Your task to perform on an android device: install app "Nova Launcher" Image 0: 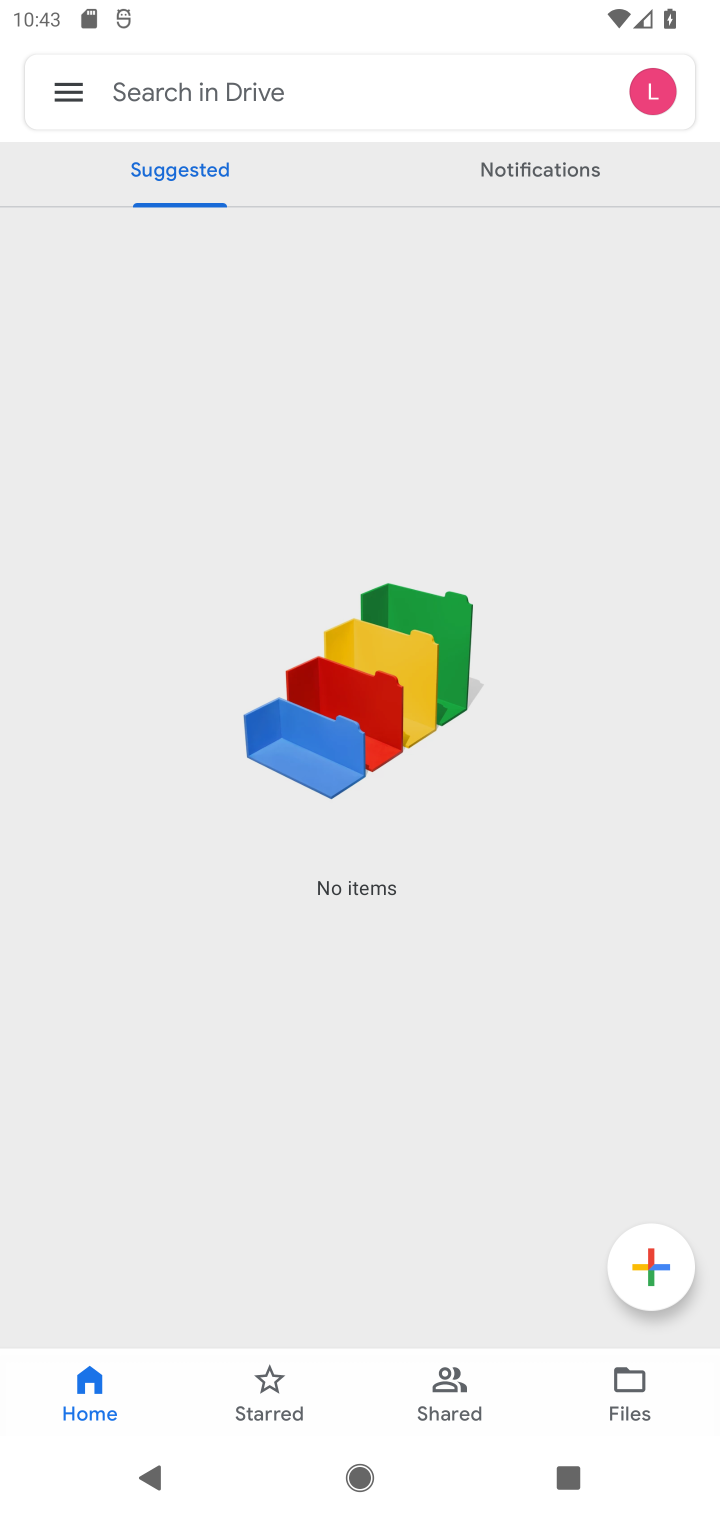
Step 0: press home button
Your task to perform on an android device: install app "Nova Launcher" Image 1: 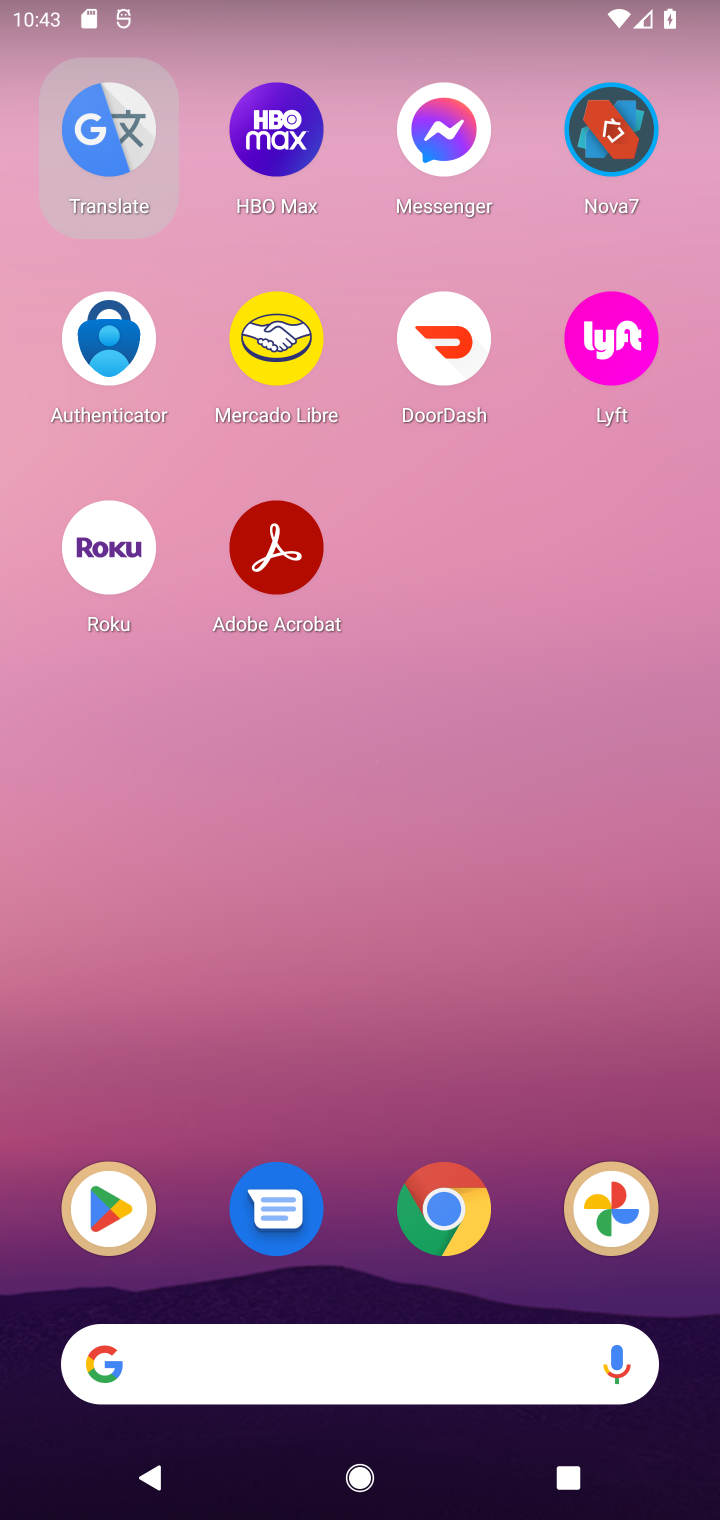
Step 1: drag from (544, 1047) to (302, 2)
Your task to perform on an android device: install app "Nova Launcher" Image 2: 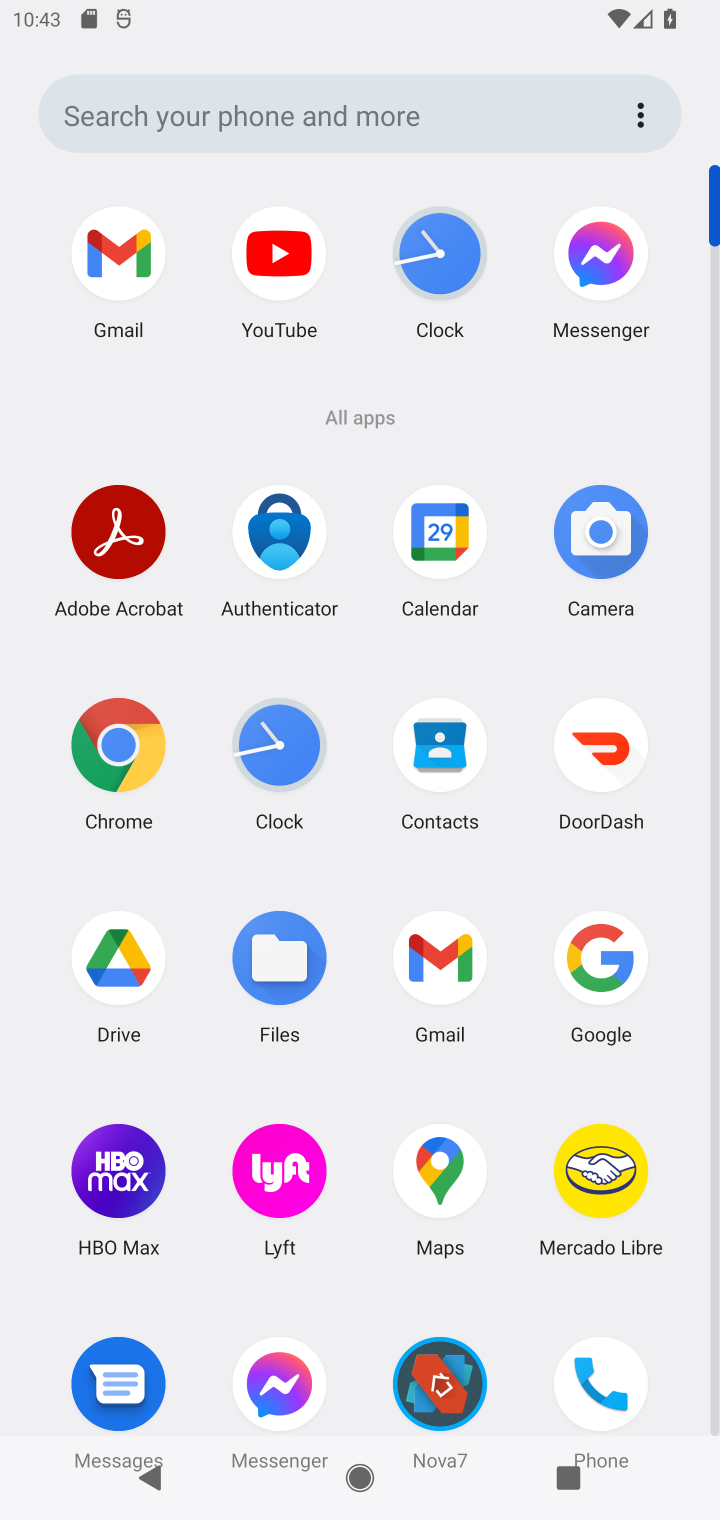
Step 2: drag from (504, 1224) to (569, 512)
Your task to perform on an android device: install app "Nova Launcher" Image 3: 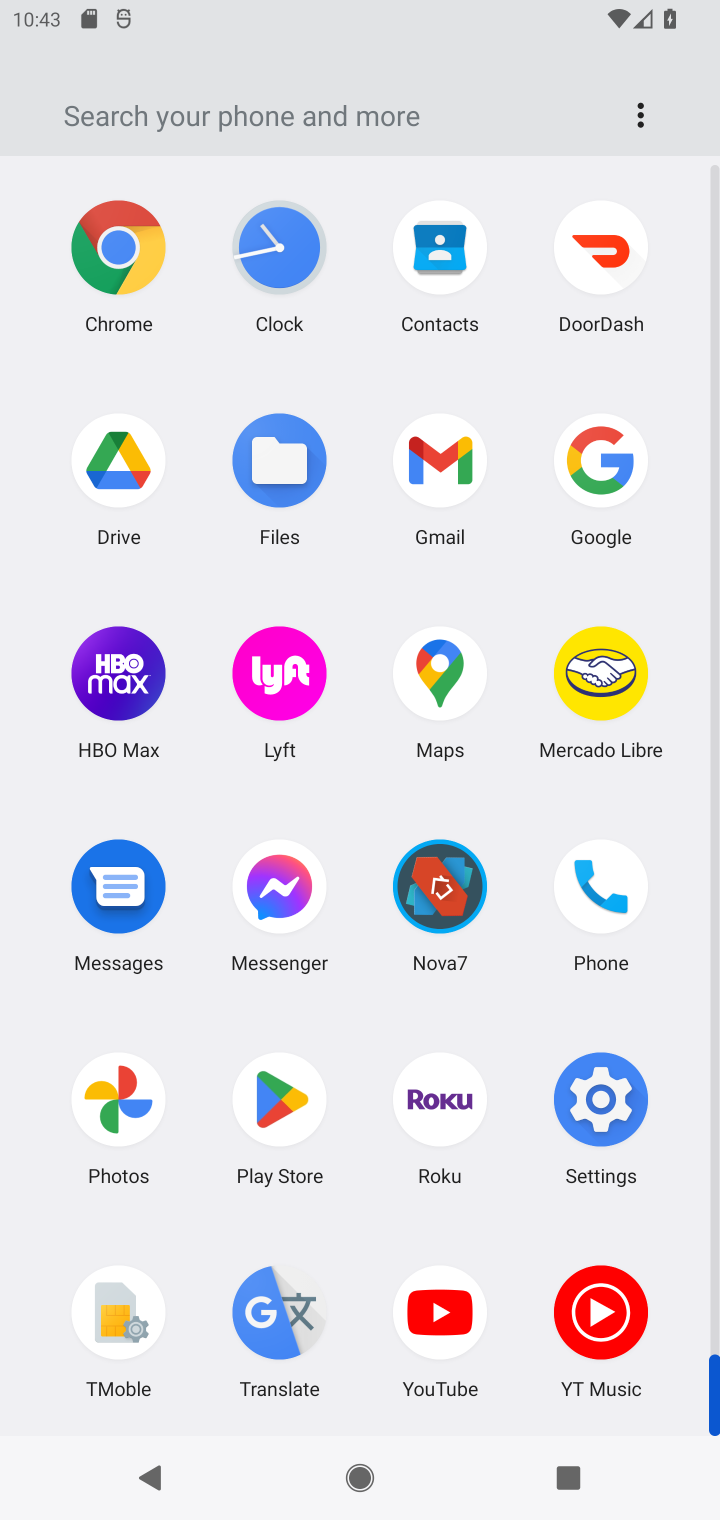
Step 3: click (284, 1094)
Your task to perform on an android device: install app "Nova Launcher" Image 4: 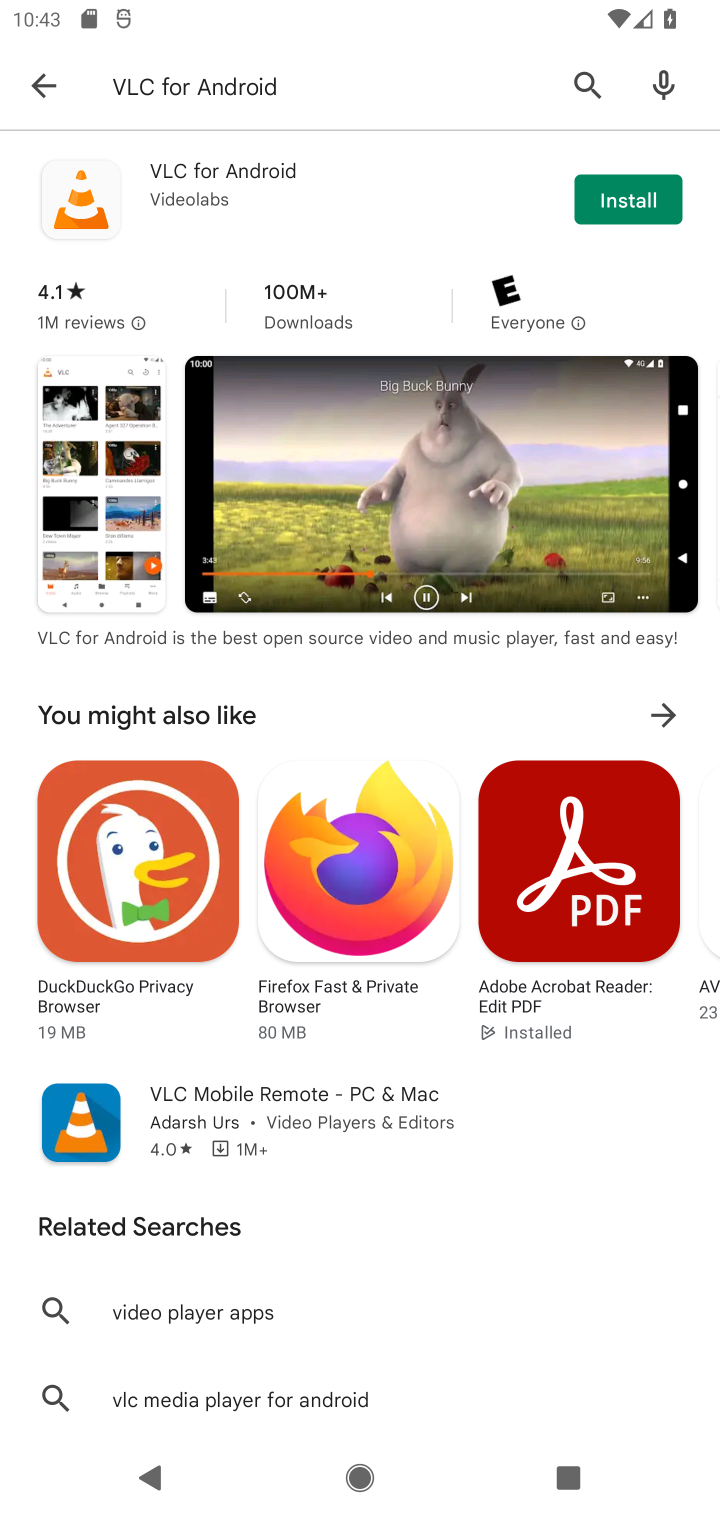
Step 4: click (433, 79)
Your task to perform on an android device: install app "Nova Launcher" Image 5: 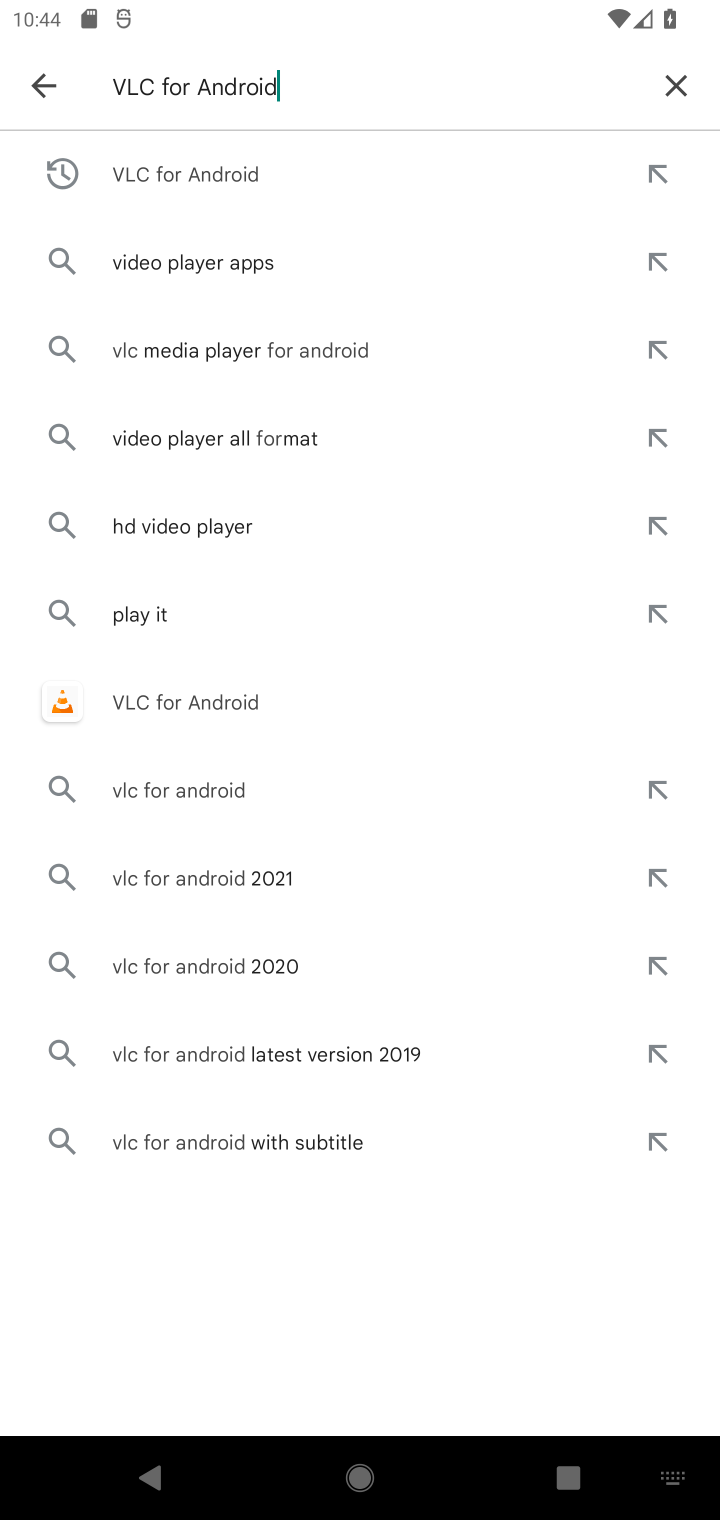
Step 5: click (671, 87)
Your task to perform on an android device: install app "Nova Launcher" Image 6: 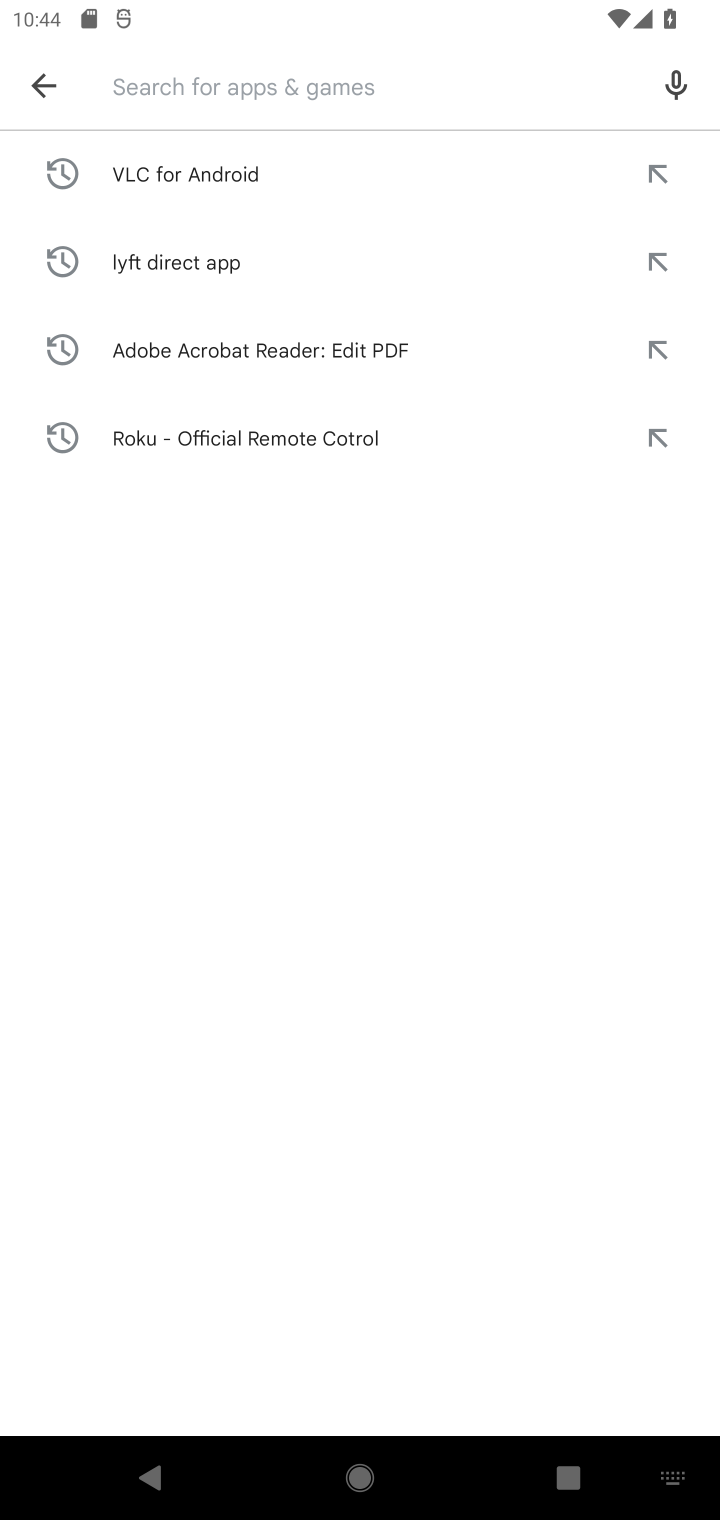
Step 6: type "Nova Launcher"
Your task to perform on an android device: install app "Nova Launcher" Image 7: 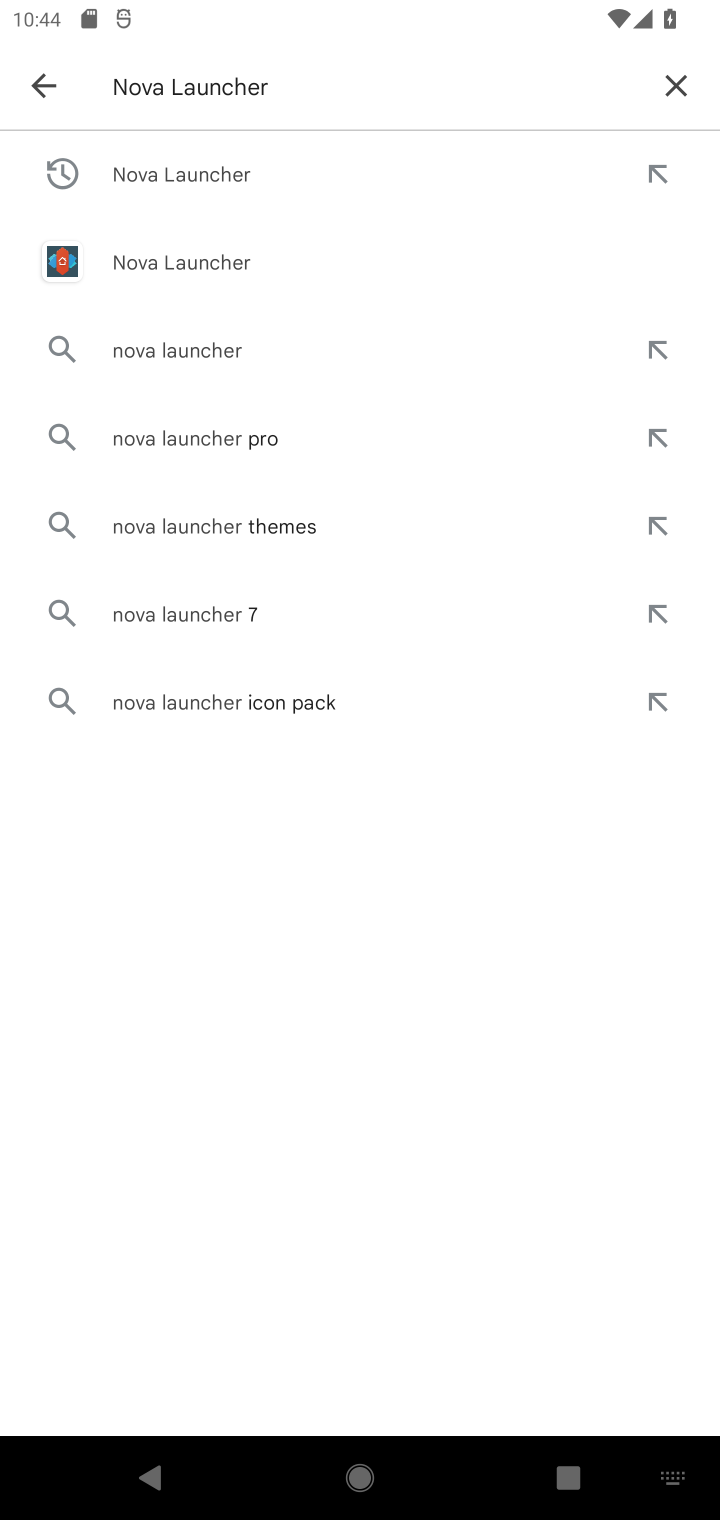
Step 7: press enter
Your task to perform on an android device: install app "Nova Launcher" Image 8: 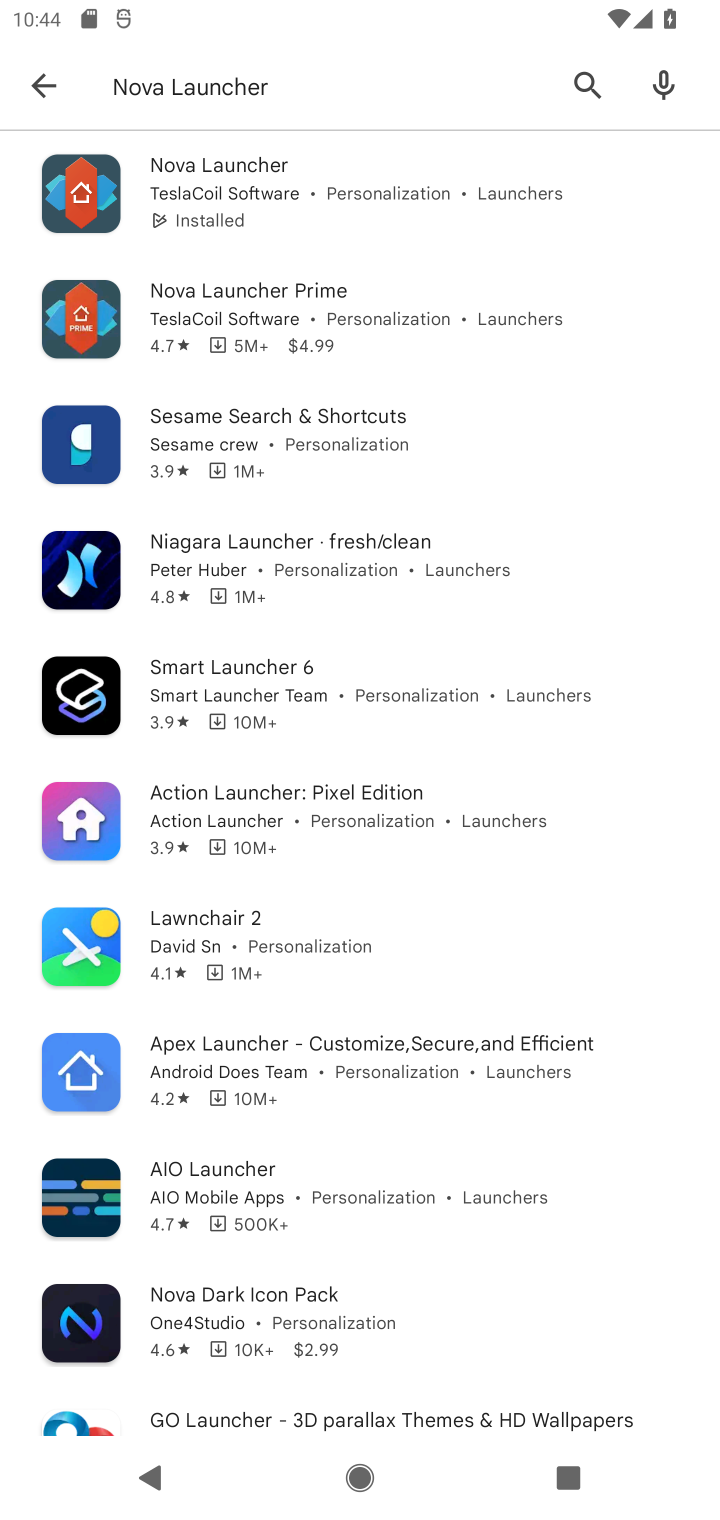
Step 8: click (288, 162)
Your task to perform on an android device: install app "Nova Launcher" Image 9: 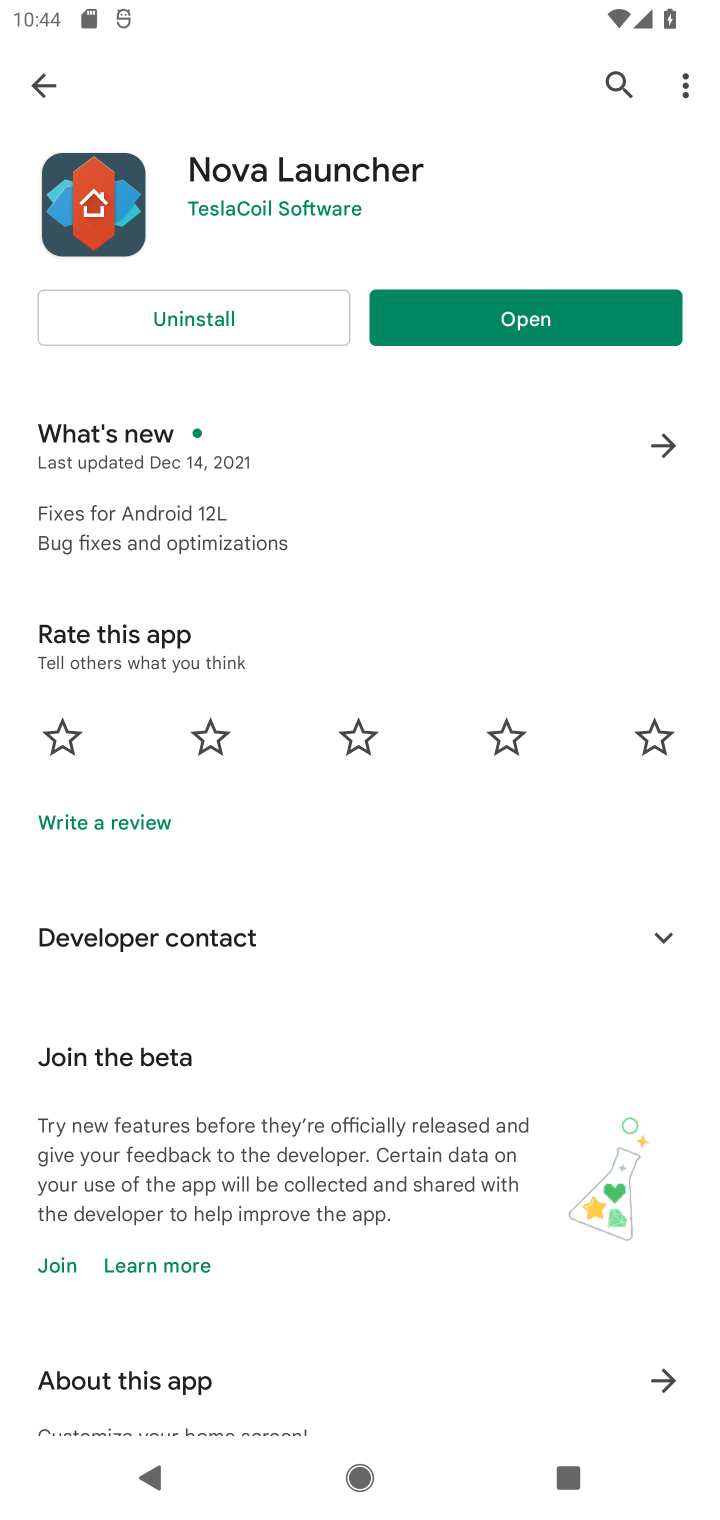
Step 9: task complete